Your task to perform on an android device: Show the shopping cart on newegg.com. Search for razer blade on newegg.com, select the first entry, and add it to the cart. Image 0: 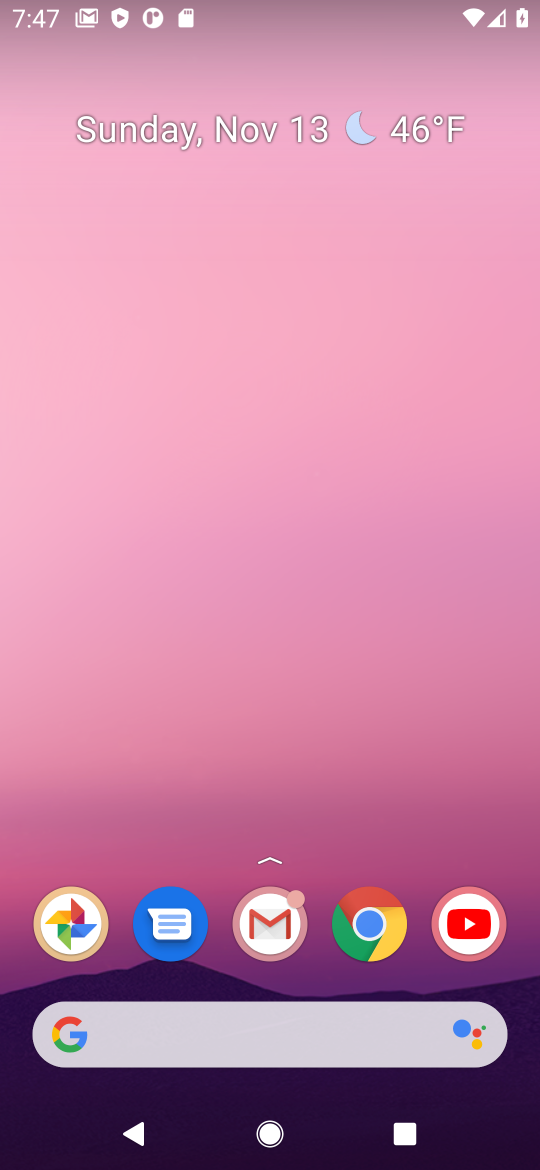
Step 0: click (377, 909)
Your task to perform on an android device: Show the shopping cart on newegg.com. Search for razer blade on newegg.com, select the first entry, and add it to the cart. Image 1: 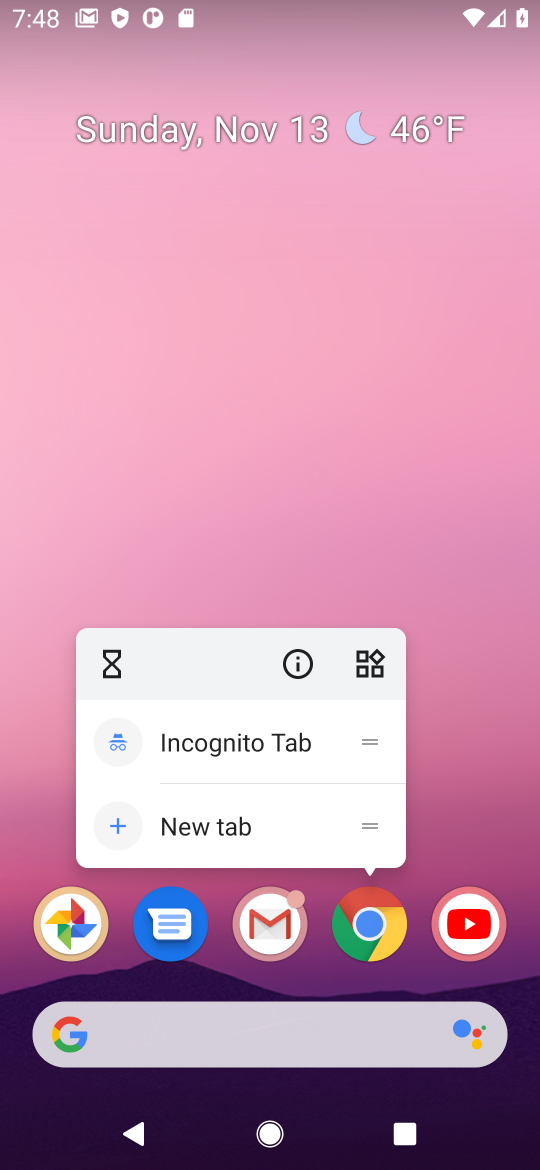
Step 1: click (374, 920)
Your task to perform on an android device: Show the shopping cart on newegg.com. Search for razer blade on newegg.com, select the first entry, and add it to the cart. Image 2: 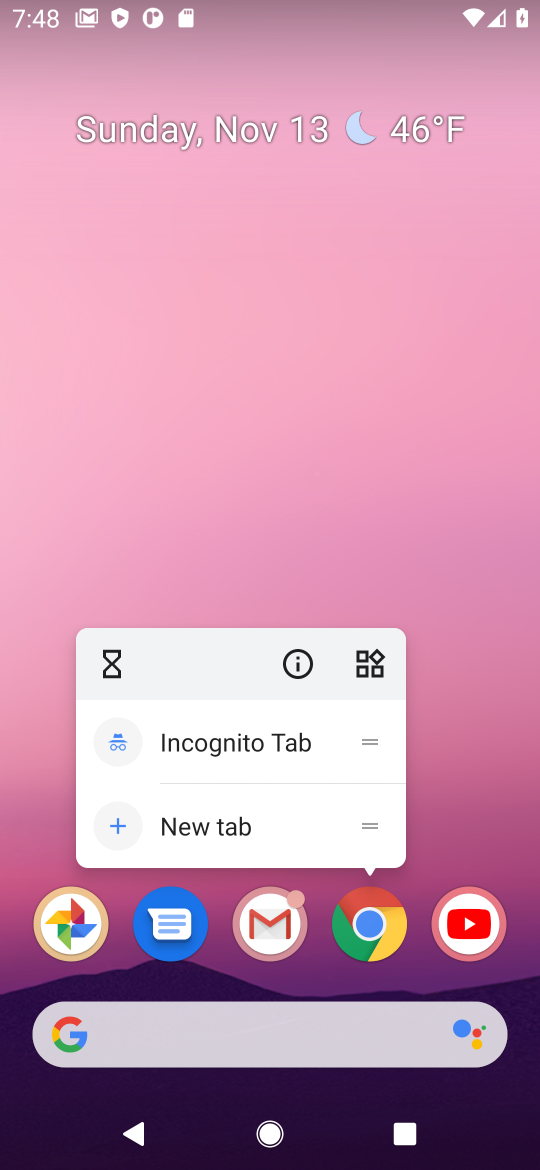
Step 2: click (372, 916)
Your task to perform on an android device: Show the shopping cart on newegg.com. Search for razer blade on newegg.com, select the first entry, and add it to the cart. Image 3: 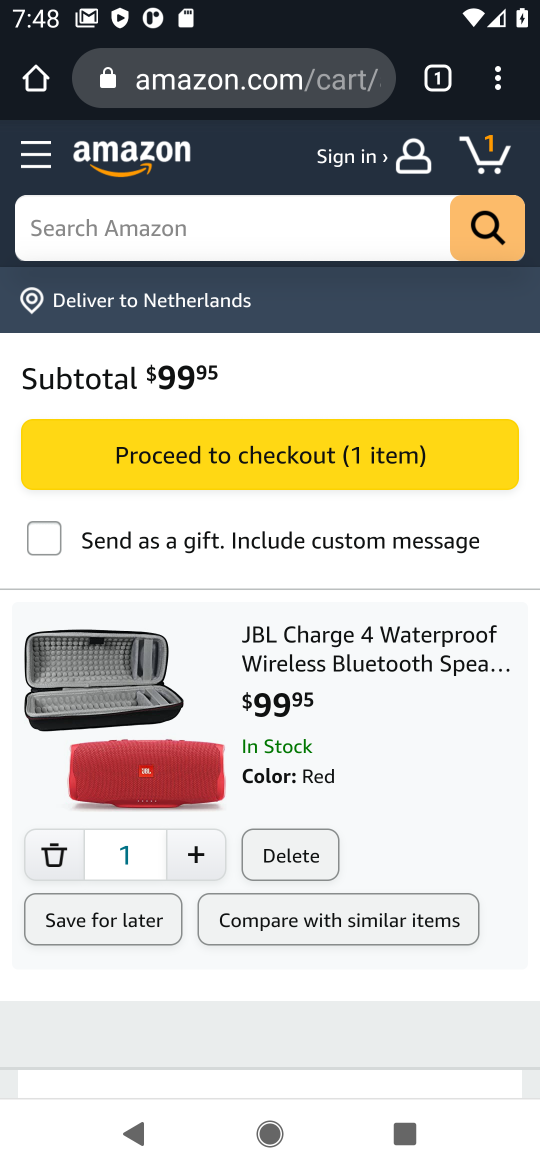
Step 3: click (263, 217)
Your task to perform on an android device: Show the shopping cart on newegg.com. Search for razer blade on newegg.com, select the first entry, and add it to the cart. Image 4: 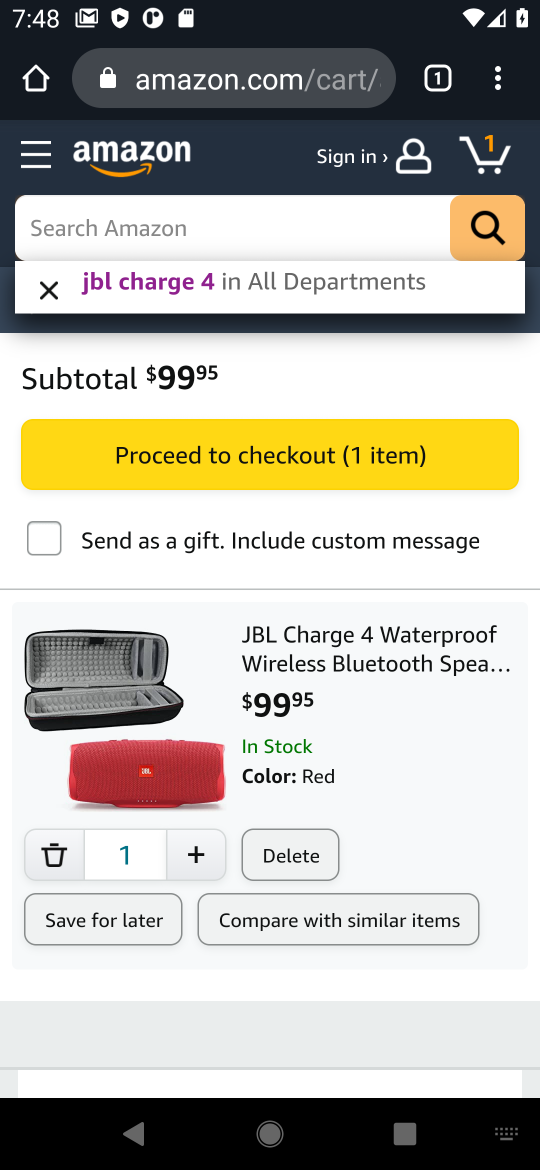
Step 4: click (295, 69)
Your task to perform on an android device: Show the shopping cart on newegg.com. Search for razer blade on newegg.com, select the first entry, and add it to the cart. Image 5: 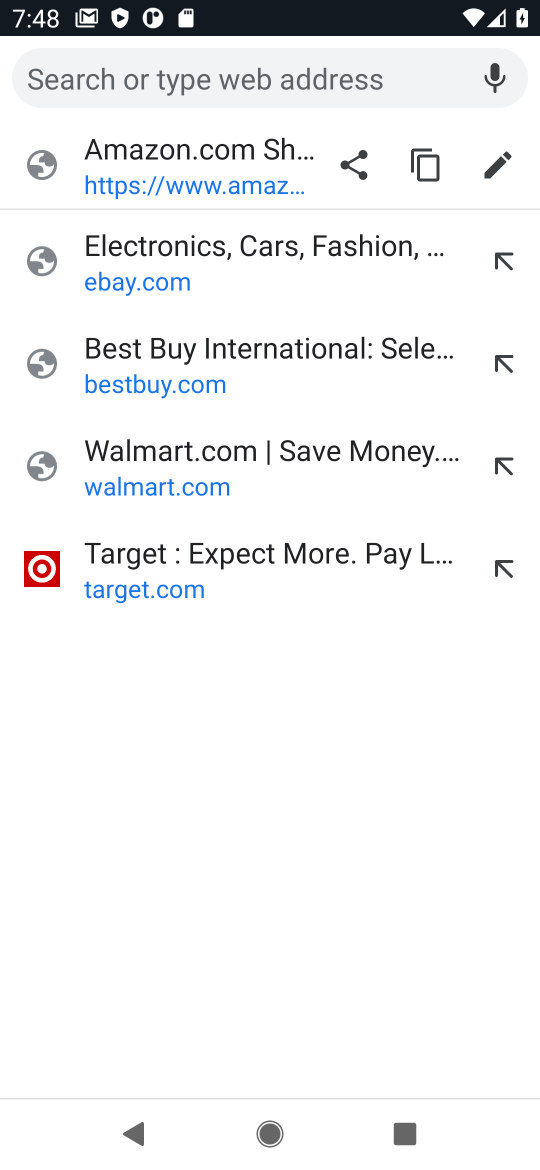
Step 5: type " newegg.com"
Your task to perform on an android device: Show the shopping cart on newegg.com. Search for razer blade on newegg.com, select the first entry, and add it to the cart. Image 6: 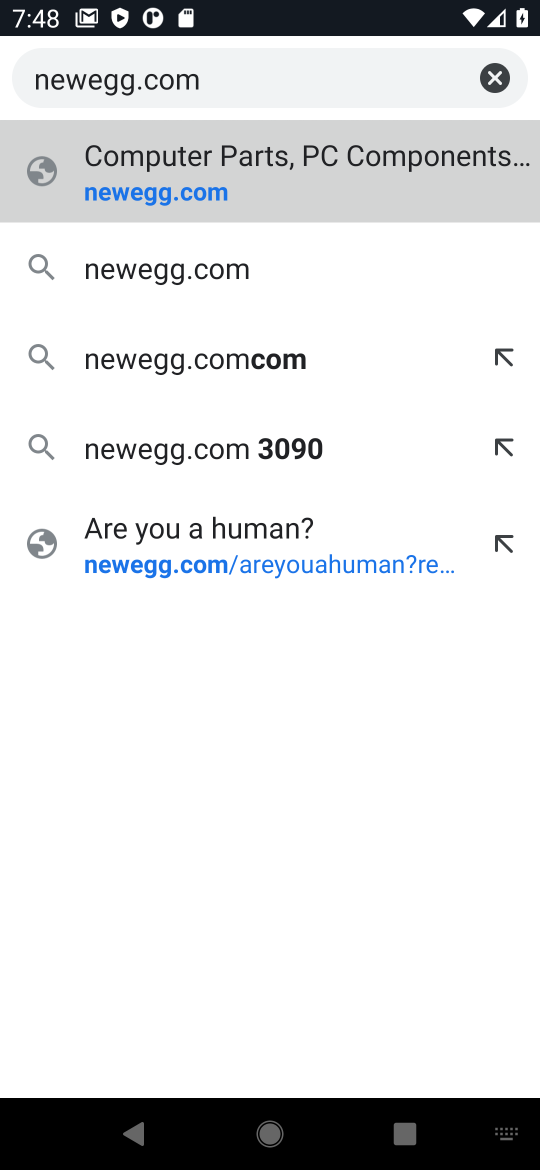
Step 6: press enter
Your task to perform on an android device: Show the shopping cart on newegg.com. Search for razer blade on newegg.com, select the first entry, and add it to the cart. Image 7: 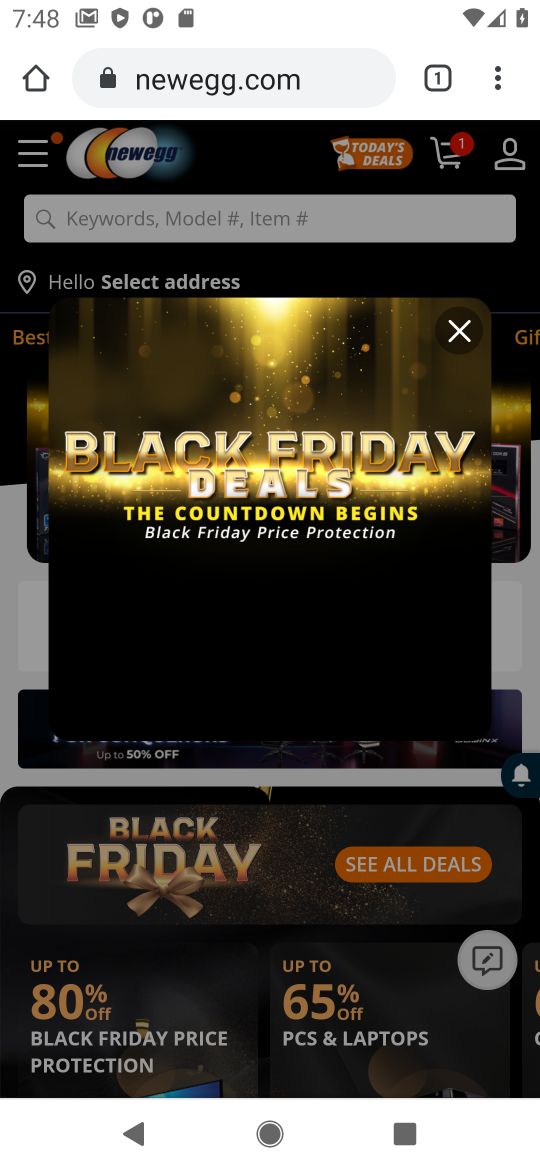
Step 7: click (302, 207)
Your task to perform on an android device: Show the shopping cart on newegg.com. Search for razer blade on newegg.com, select the first entry, and add it to the cart. Image 8: 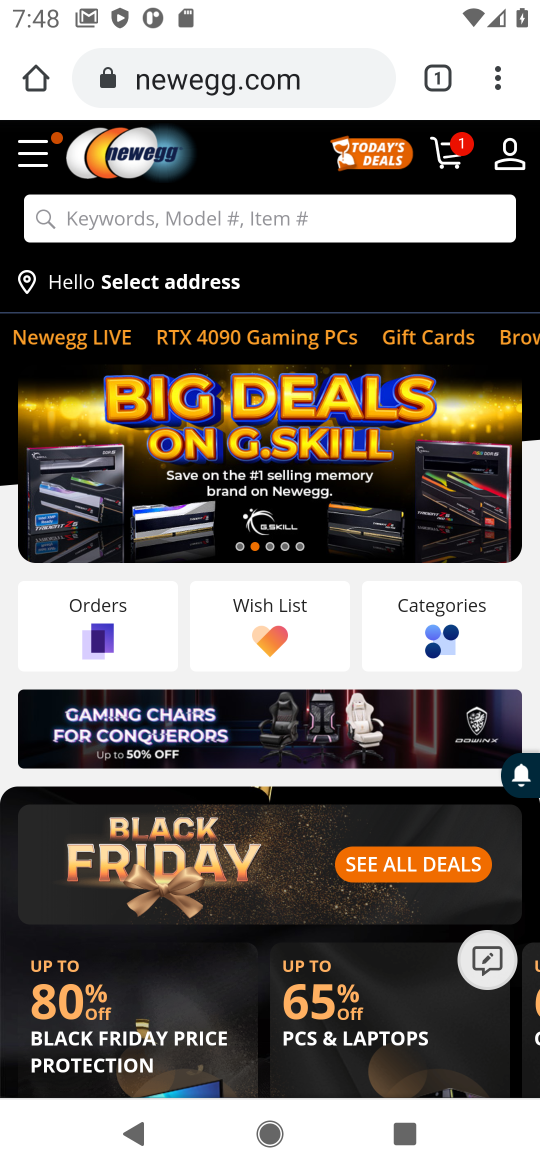
Step 8: click (345, 218)
Your task to perform on an android device: Show the shopping cart on newegg.com. Search for razer blade on newegg.com, select the first entry, and add it to the cart. Image 9: 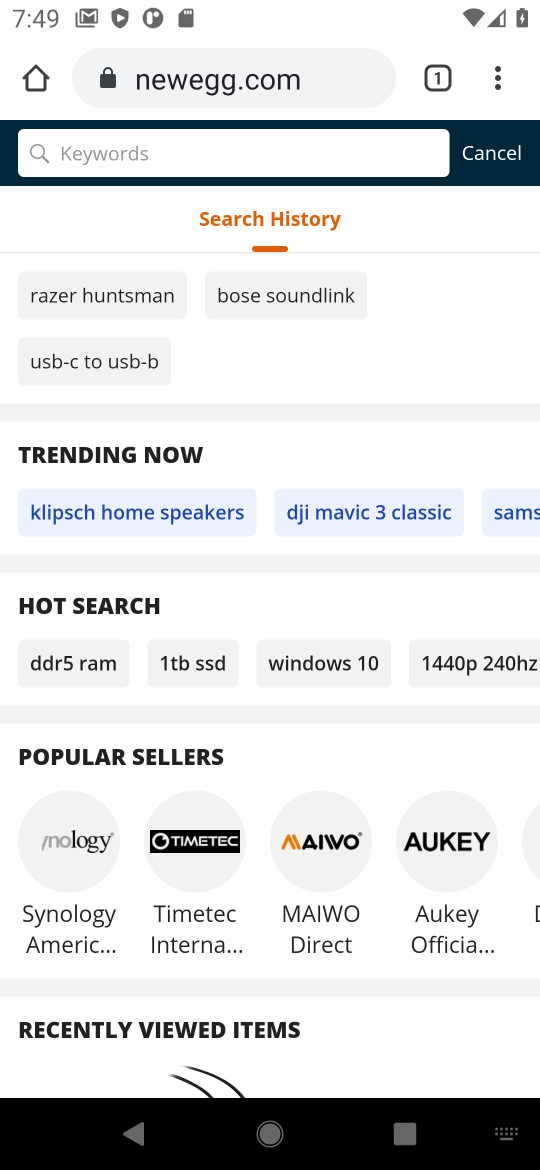
Step 9: type "razer blade"
Your task to perform on an android device: Show the shopping cart on newegg.com. Search for razer blade on newegg.com, select the first entry, and add it to the cart. Image 10: 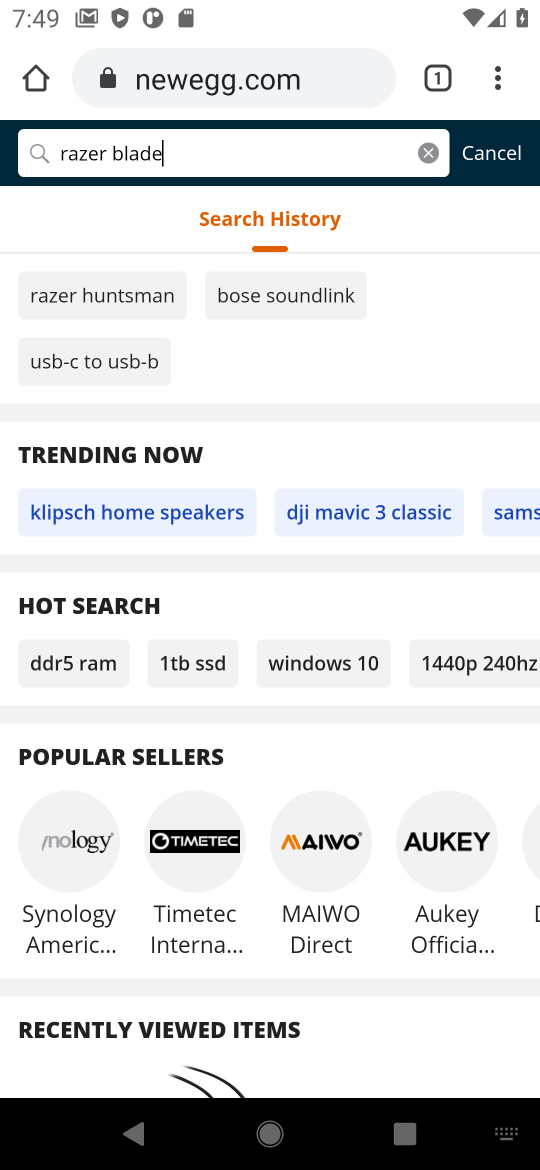
Step 10: press enter
Your task to perform on an android device: Show the shopping cart on newegg.com. Search for razer blade on newegg.com, select the first entry, and add it to the cart. Image 11: 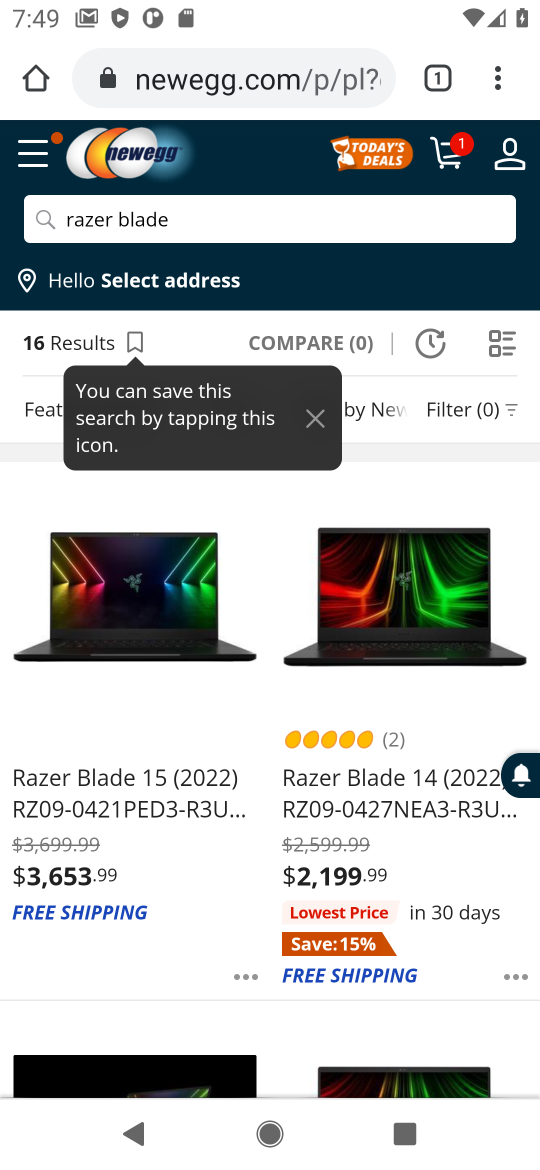
Step 11: click (88, 799)
Your task to perform on an android device: Show the shopping cart on newegg.com. Search for razer blade on newegg.com, select the first entry, and add it to the cart. Image 12: 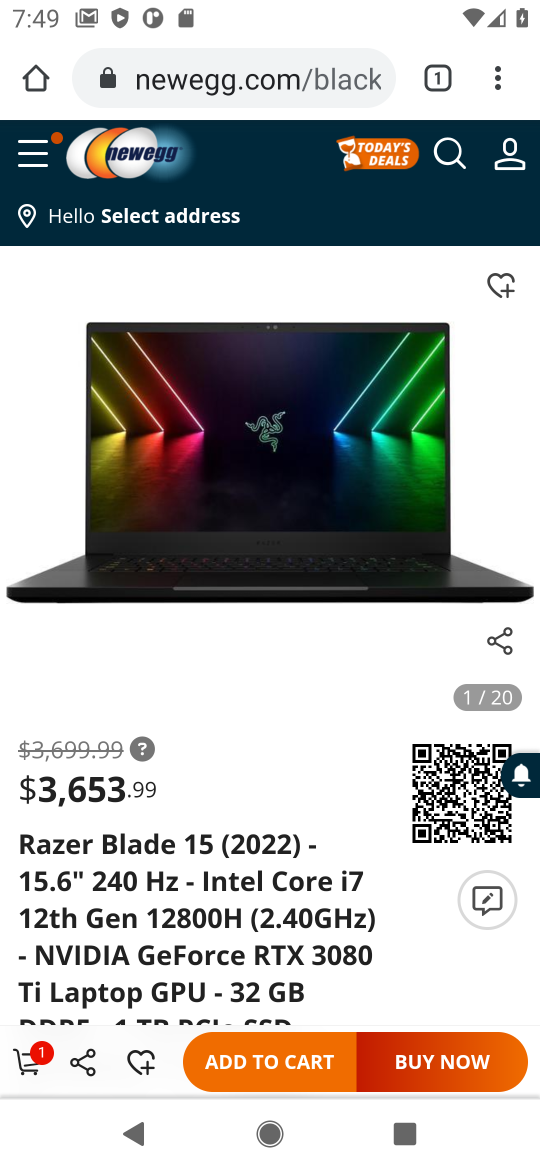
Step 12: drag from (151, 948) to (325, 486)
Your task to perform on an android device: Show the shopping cart on newegg.com. Search for razer blade on newegg.com, select the first entry, and add it to the cart. Image 13: 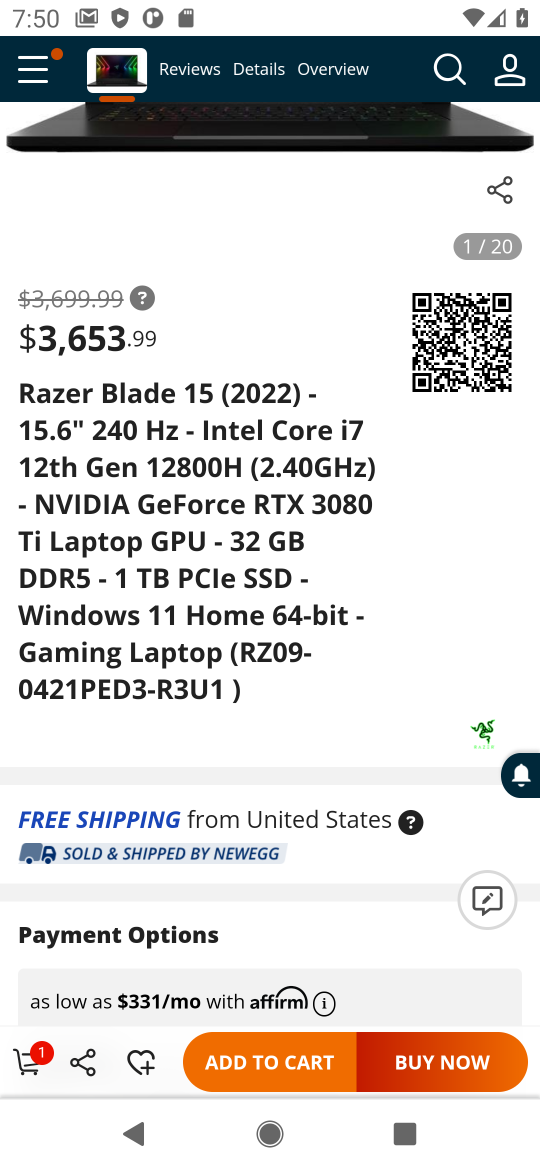
Step 13: click (255, 1057)
Your task to perform on an android device: Show the shopping cart on newegg.com. Search for razer blade on newegg.com, select the first entry, and add it to the cart. Image 14: 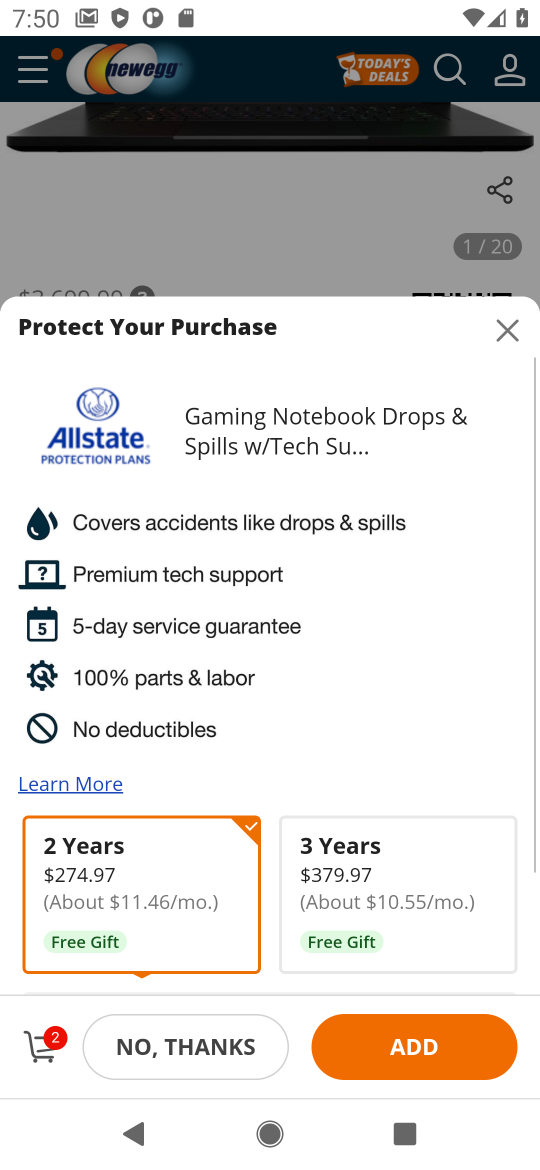
Step 14: click (46, 1043)
Your task to perform on an android device: Show the shopping cart on newegg.com. Search for razer blade on newegg.com, select the first entry, and add it to the cart. Image 15: 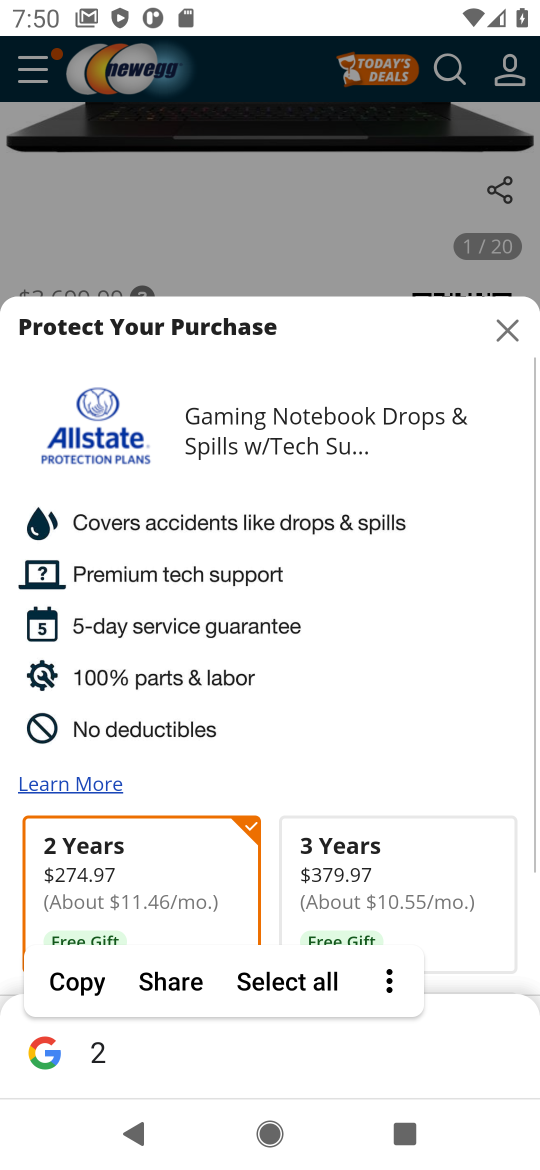
Step 15: drag from (417, 690) to (479, 333)
Your task to perform on an android device: Show the shopping cart on newegg.com. Search for razer blade on newegg.com, select the first entry, and add it to the cart. Image 16: 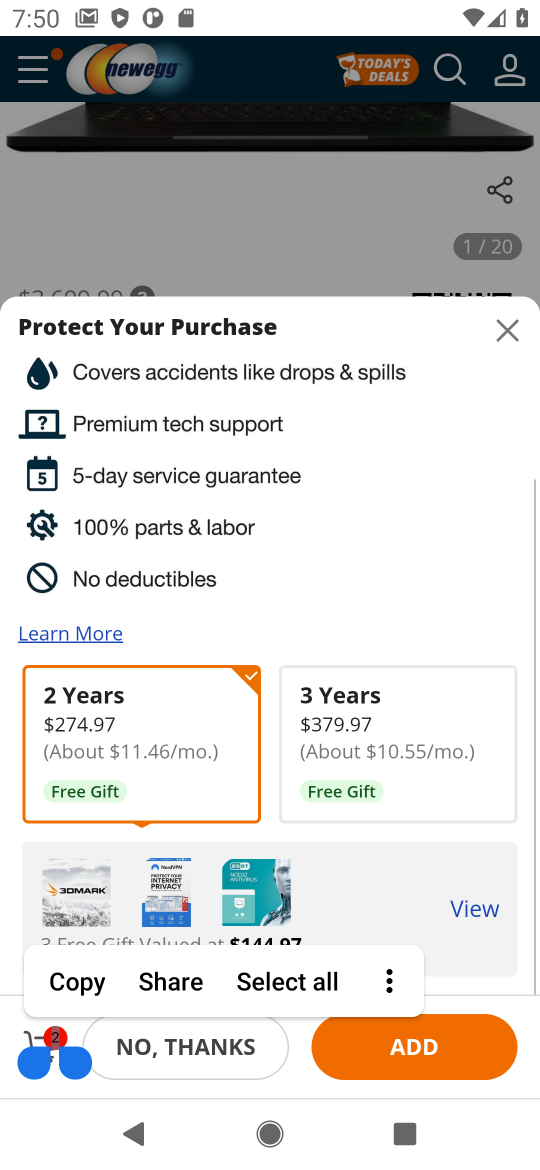
Step 16: click (52, 1043)
Your task to perform on an android device: Show the shopping cart on newegg.com. Search for razer blade on newegg.com, select the first entry, and add it to the cart. Image 17: 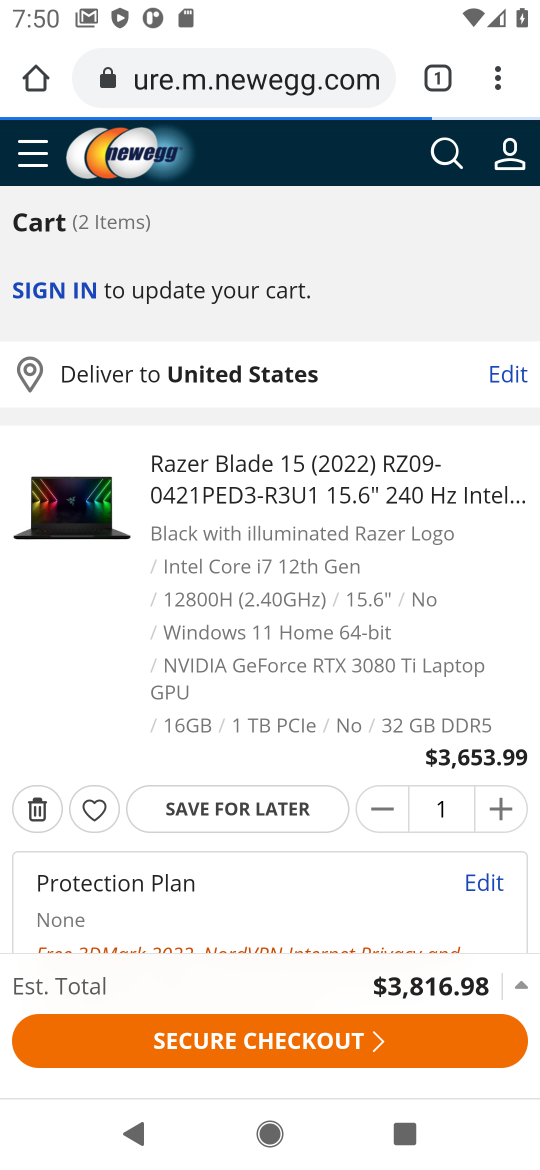
Step 17: drag from (202, 691) to (362, 91)
Your task to perform on an android device: Show the shopping cart on newegg.com. Search for razer blade on newegg.com, select the first entry, and add it to the cart. Image 18: 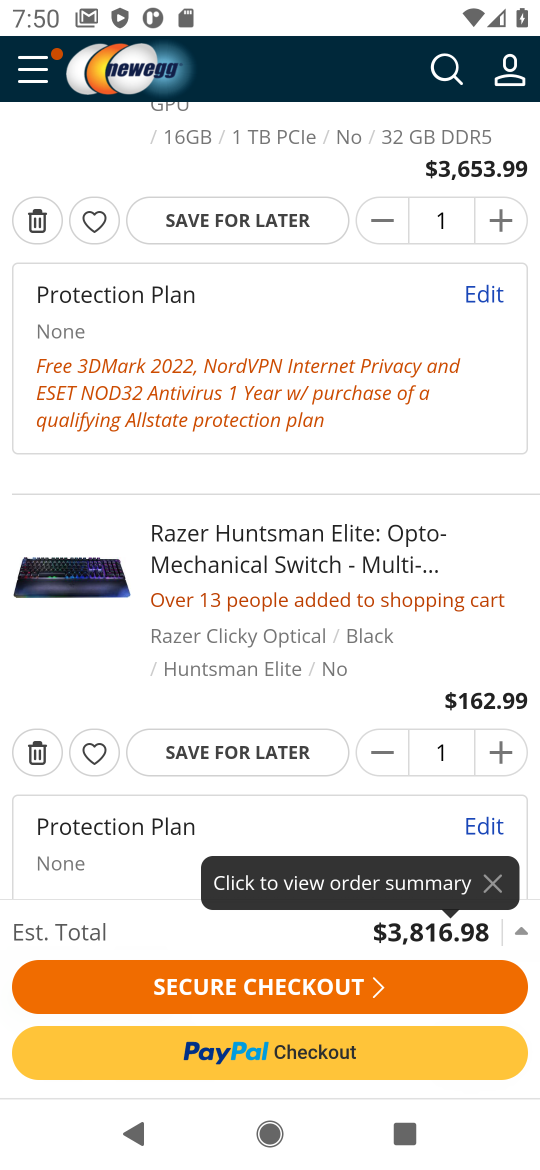
Step 18: click (41, 754)
Your task to perform on an android device: Show the shopping cart on newegg.com. Search for razer blade on newegg.com, select the first entry, and add it to the cart. Image 19: 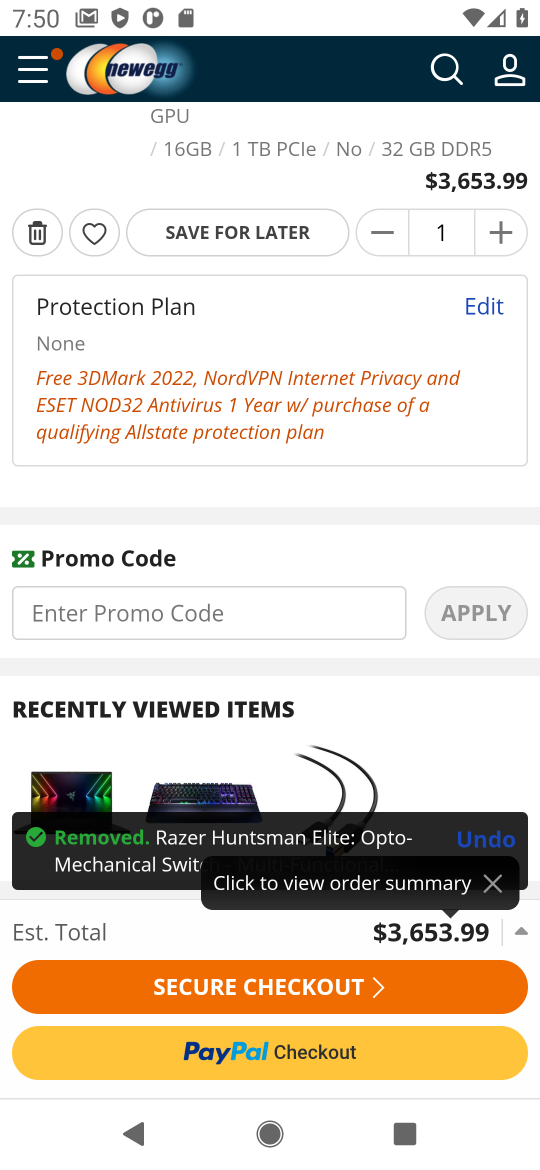
Step 19: task complete